Your task to perform on an android device: Open the map Image 0: 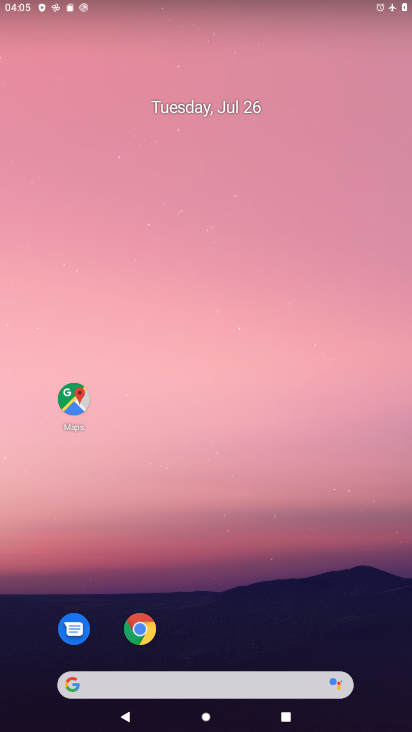
Step 0: drag from (234, 613) to (258, 69)
Your task to perform on an android device: Open the map Image 1: 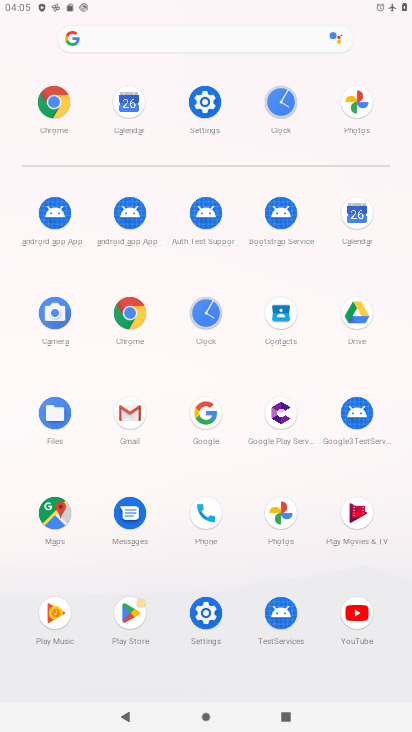
Step 1: click (53, 507)
Your task to perform on an android device: Open the map Image 2: 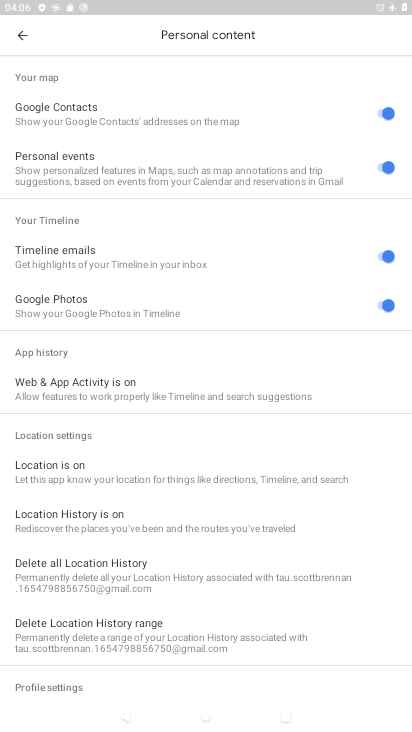
Step 2: click (22, 33)
Your task to perform on an android device: Open the map Image 3: 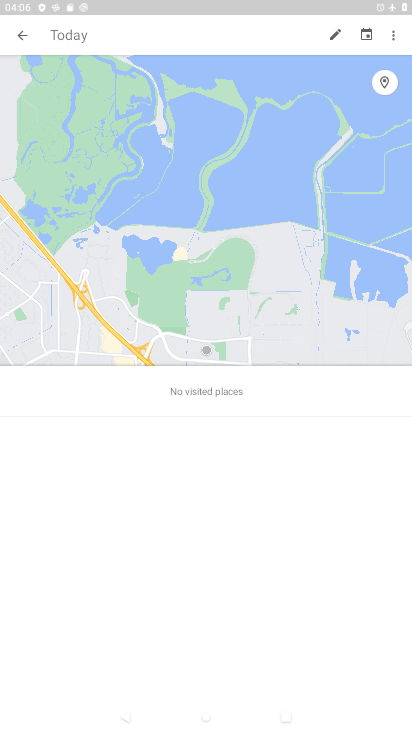
Step 3: click (18, 33)
Your task to perform on an android device: Open the map Image 4: 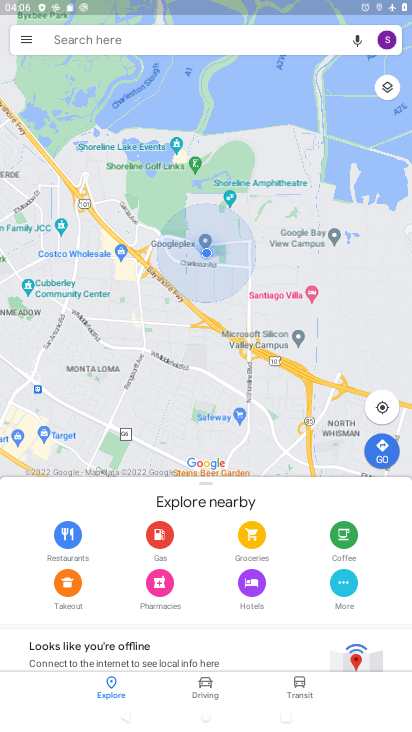
Step 4: task complete